Your task to perform on an android device: Open location settings Image 0: 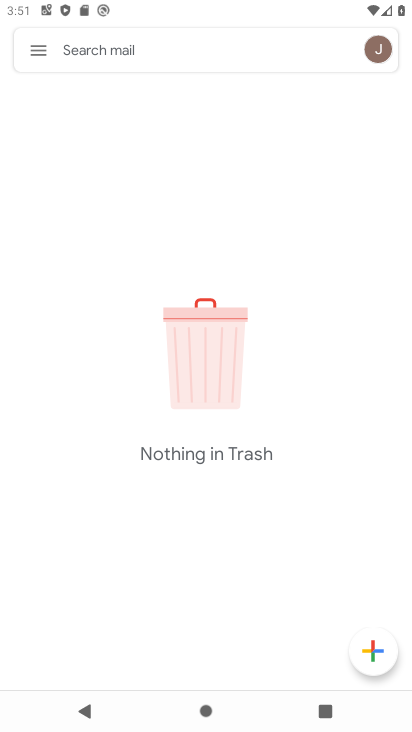
Step 0: press home button
Your task to perform on an android device: Open location settings Image 1: 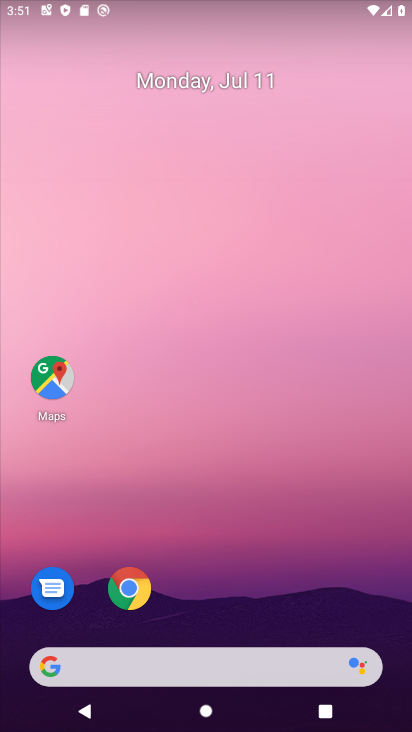
Step 1: drag from (303, 598) to (247, 62)
Your task to perform on an android device: Open location settings Image 2: 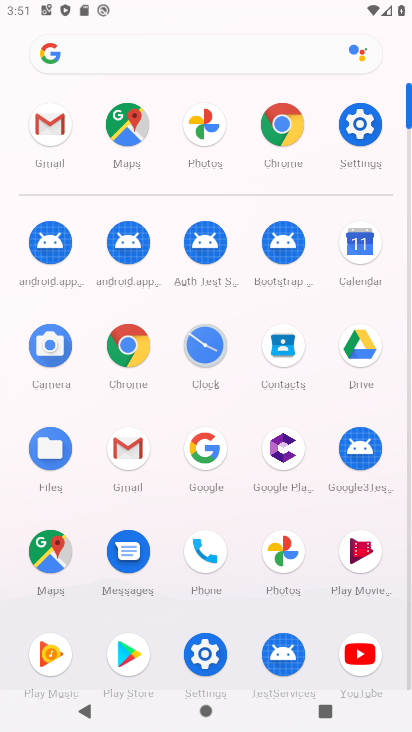
Step 2: click (358, 120)
Your task to perform on an android device: Open location settings Image 3: 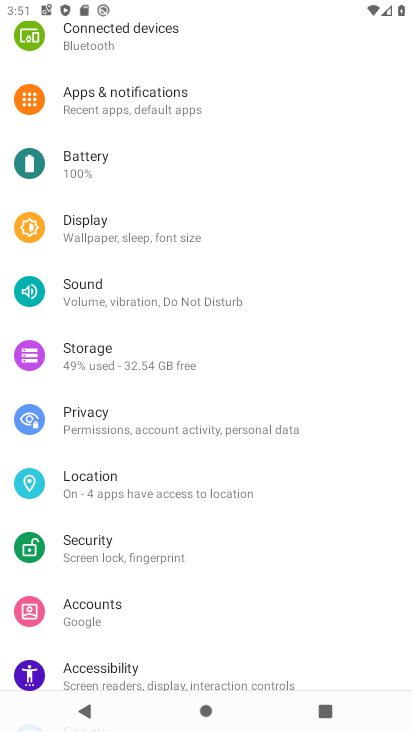
Step 3: click (156, 488)
Your task to perform on an android device: Open location settings Image 4: 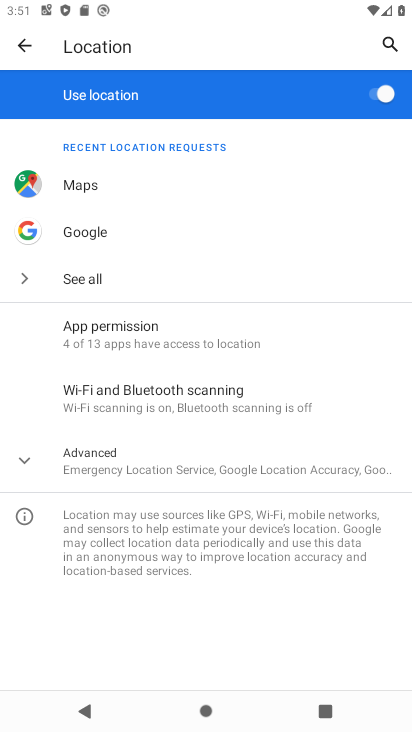
Step 4: task complete